Your task to perform on an android device: Look up the best gaming chair on Best Buy. Image 0: 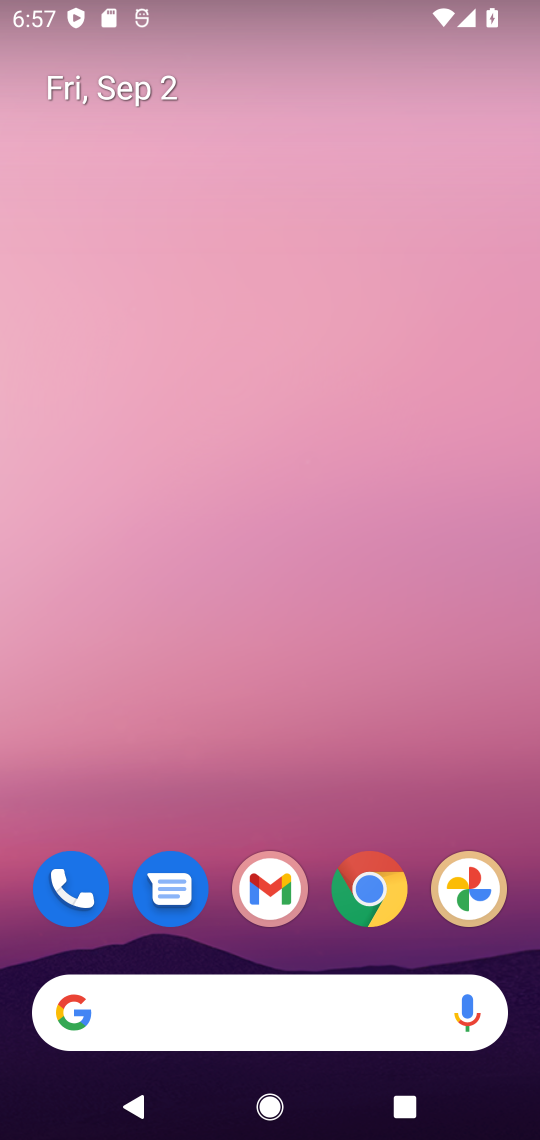
Step 0: click (279, 986)
Your task to perform on an android device: Look up the best gaming chair on Best Buy. Image 1: 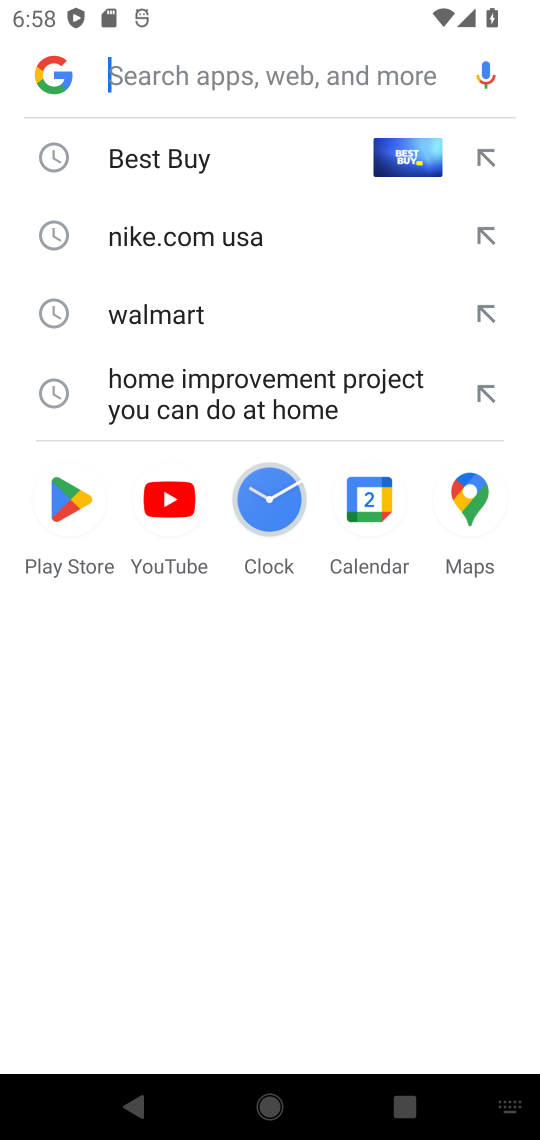
Step 1: click (219, 168)
Your task to perform on an android device: Look up the best gaming chair on Best Buy. Image 2: 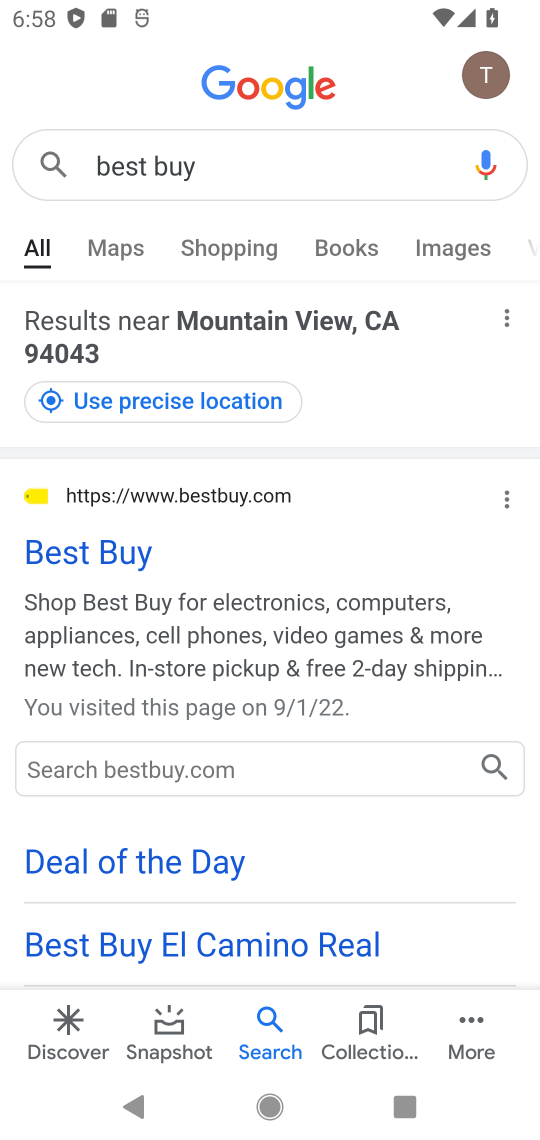
Step 2: click (99, 524)
Your task to perform on an android device: Look up the best gaming chair on Best Buy. Image 3: 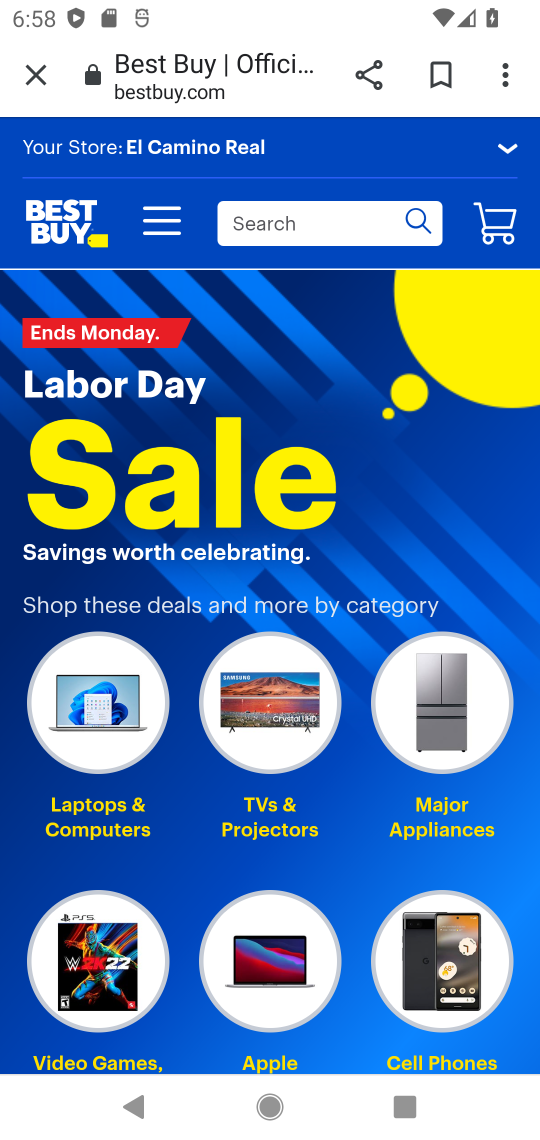
Step 3: click (313, 210)
Your task to perform on an android device: Look up the best gaming chair on Best Buy. Image 4: 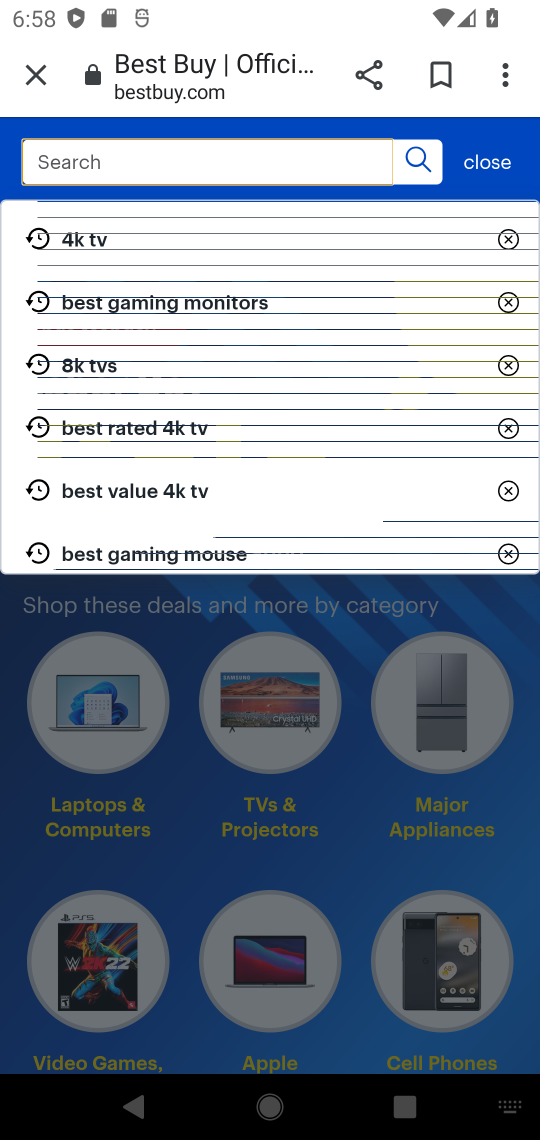
Step 4: click (225, 148)
Your task to perform on an android device: Look up the best gaming chair on Best Buy. Image 5: 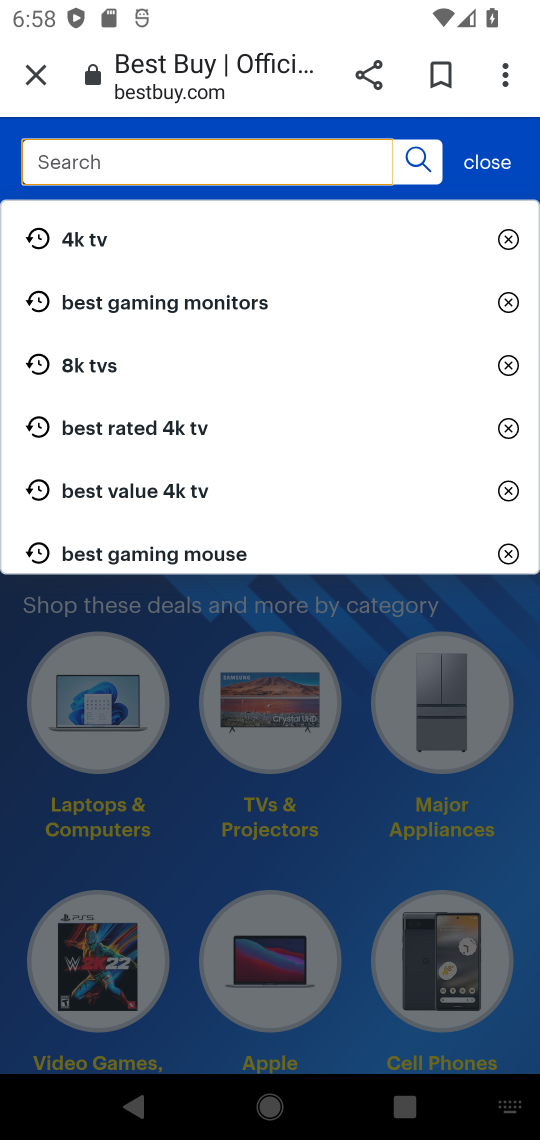
Step 5: type "gaming chair"
Your task to perform on an android device: Look up the best gaming chair on Best Buy. Image 6: 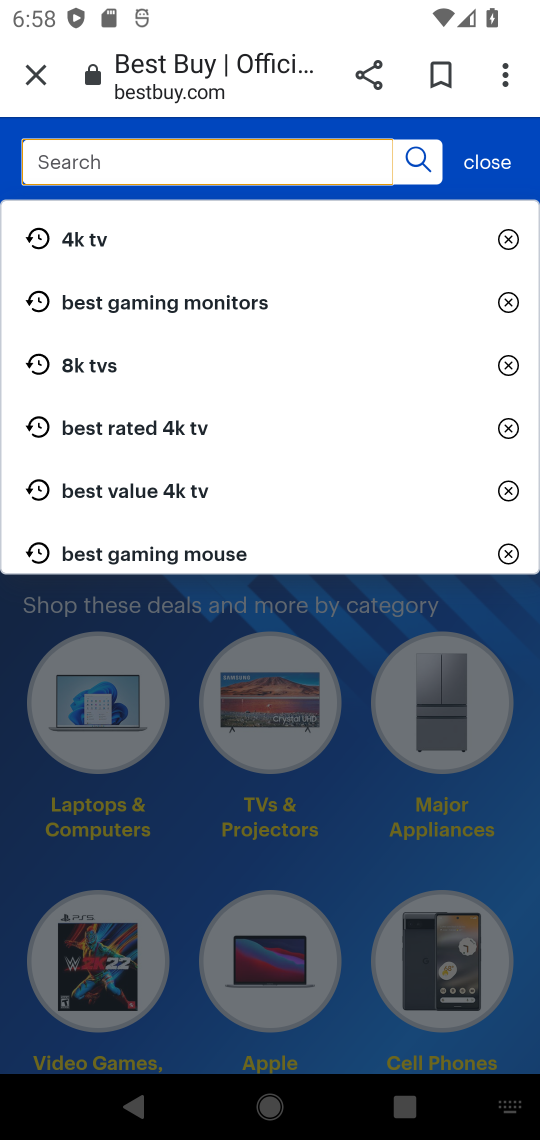
Step 6: type ""
Your task to perform on an android device: Look up the best gaming chair on Best Buy. Image 7: 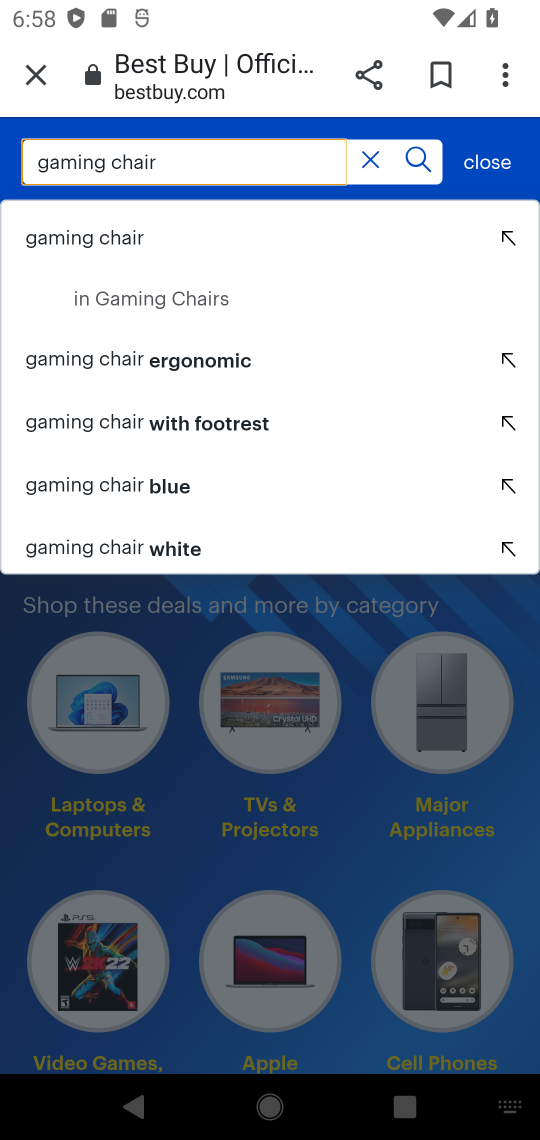
Step 7: click (96, 251)
Your task to perform on an android device: Look up the best gaming chair on Best Buy. Image 8: 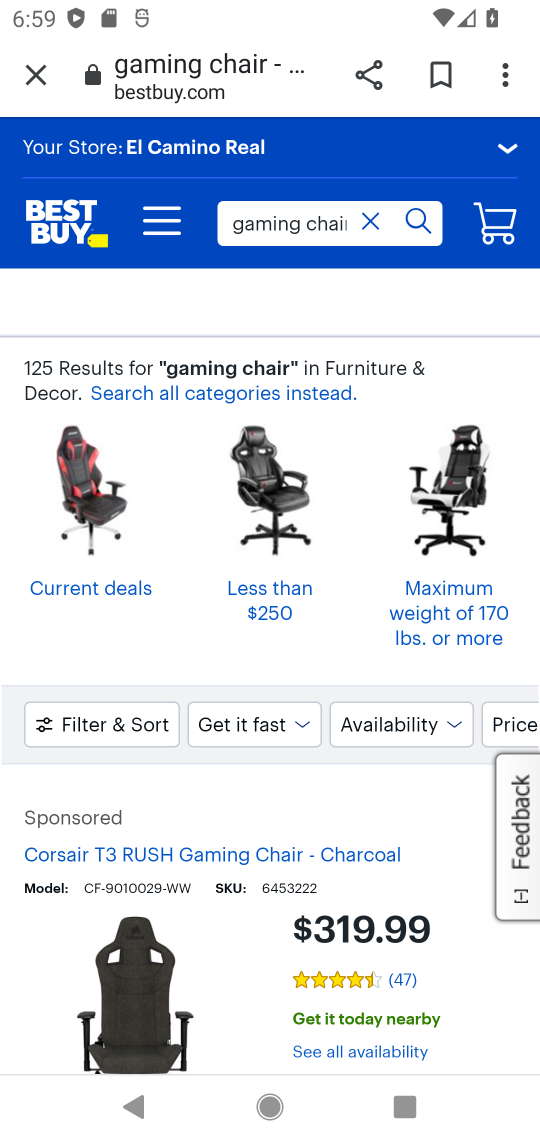
Step 8: task complete